Your task to perform on an android device: Go to Google Image 0: 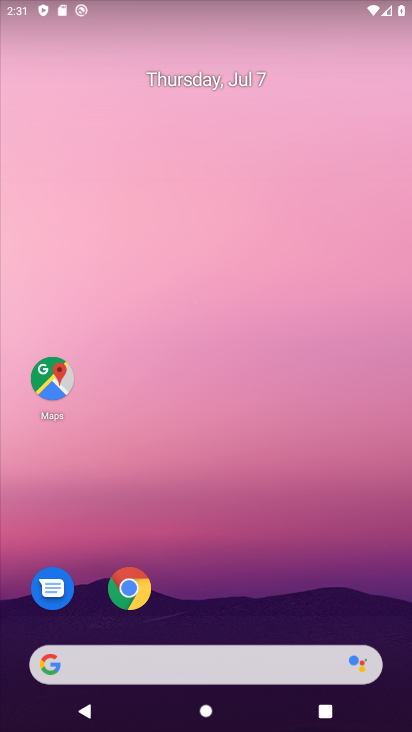
Step 0: drag from (228, 600) to (214, 7)
Your task to perform on an android device: Go to Google Image 1: 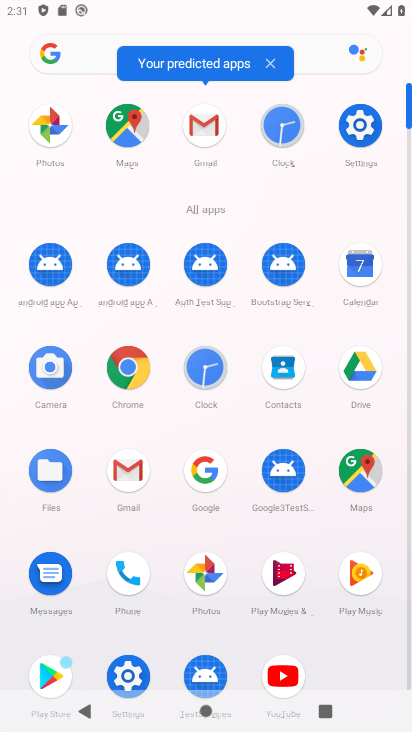
Step 1: click (203, 469)
Your task to perform on an android device: Go to Google Image 2: 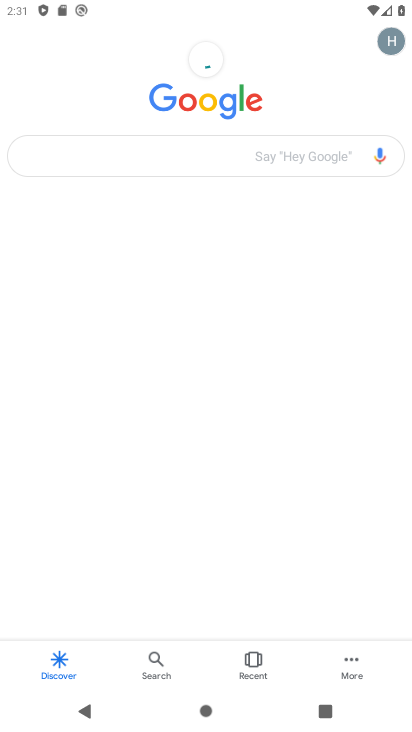
Step 2: task complete